Your task to perform on an android device: Open Google Chrome Image 0: 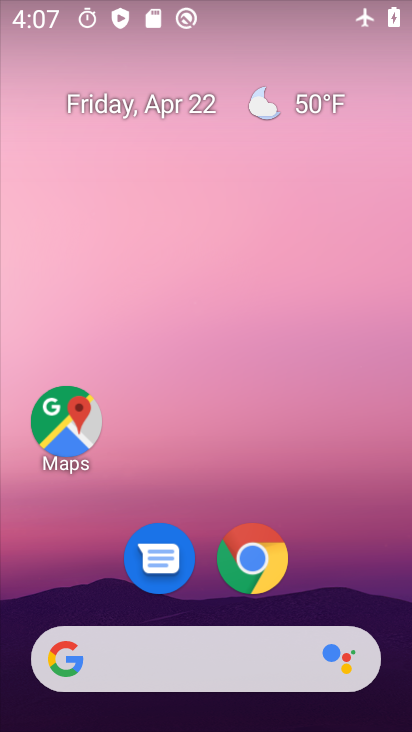
Step 0: drag from (339, 598) to (290, 109)
Your task to perform on an android device: Open Google Chrome Image 1: 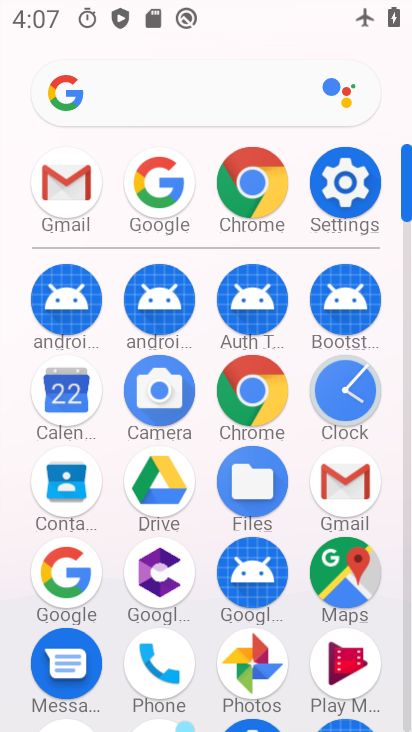
Step 1: click (271, 208)
Your task to perform on an android device: Open Google Chrome Image 2: 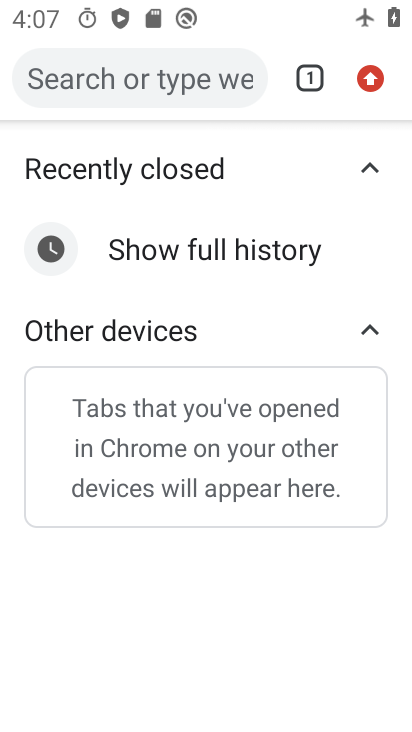
Step 2: click (378, 86)
Your task to perform on an android device: Open Google Chrome Image 3: 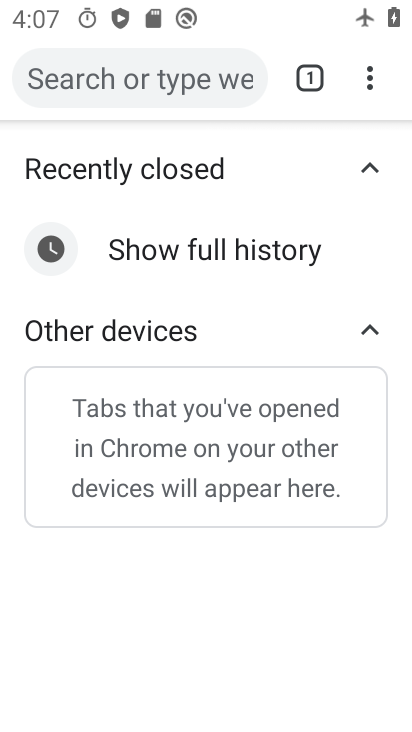
Step 3: click (369, 85)
Your task to perform on an android device: Open Google Chrome Image 4: 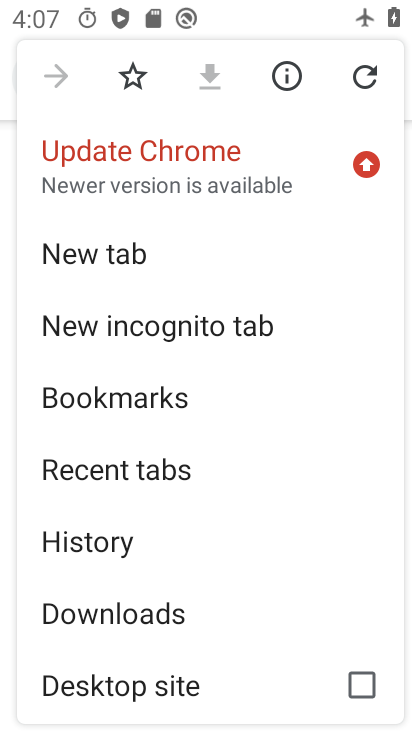
Step 4: task complete